Your task to perform on an android device: Add macbook pro to the cart on amazon, then select checkout. Image 0: 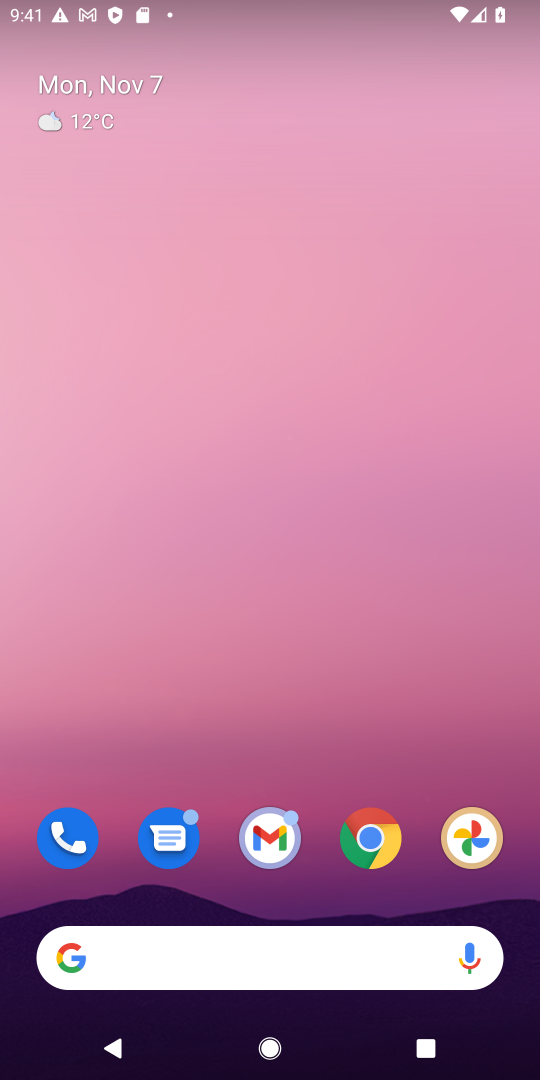
Step 0: click (372, 851)
Your task to perform on an android device: Add macbook pro to the cart on amazon, then select checkout. Image 1: 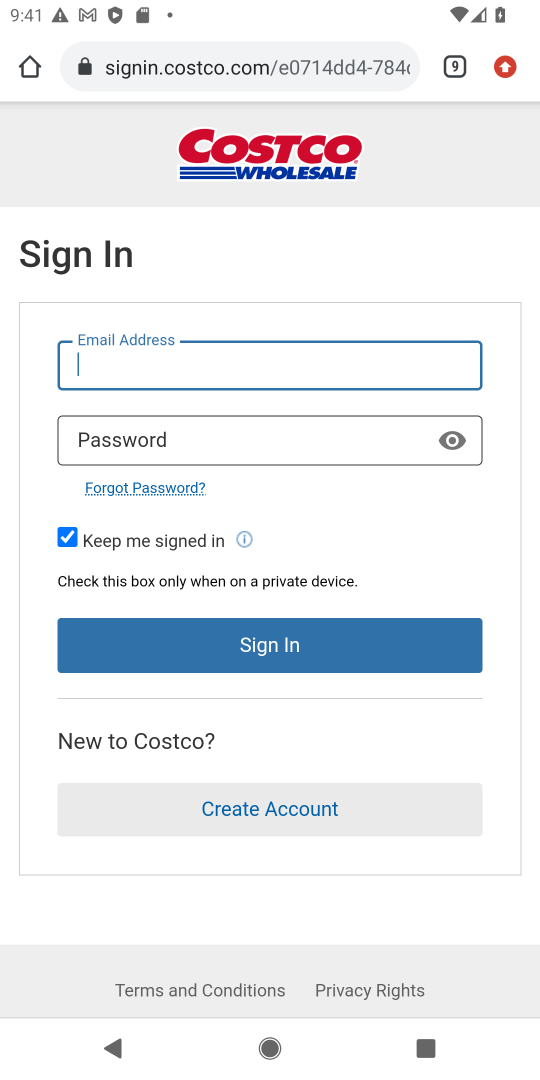
Step 1: click (450, 60)
Your task to perform on an android device: Add macbook pro to the cart on amazon, then select checkout. Image 2: 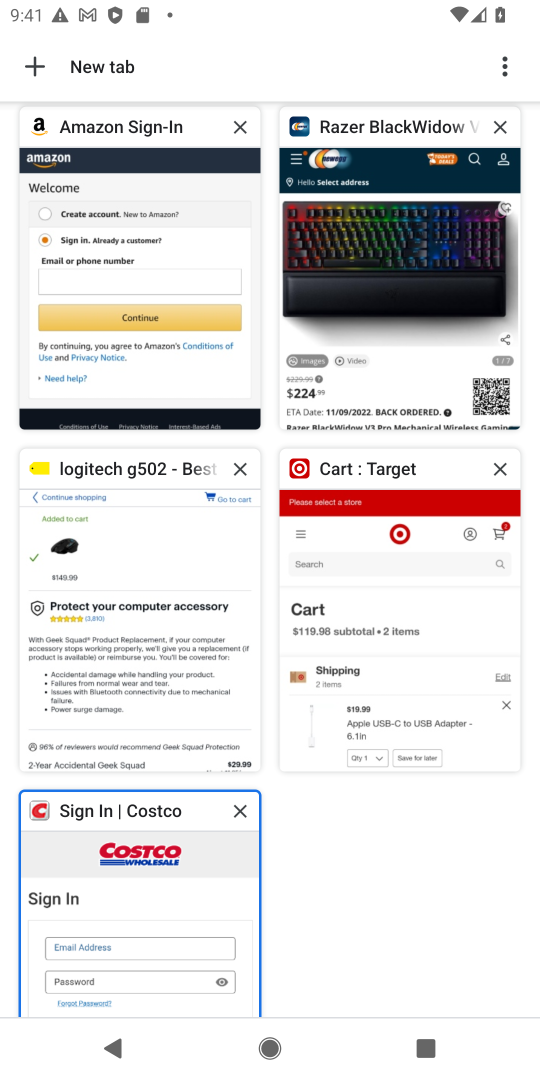
Step 2: click (117, 344)
Your task to perform on an android device: Add macbook pro to the cart on amazon, then select checkout. Image 3: 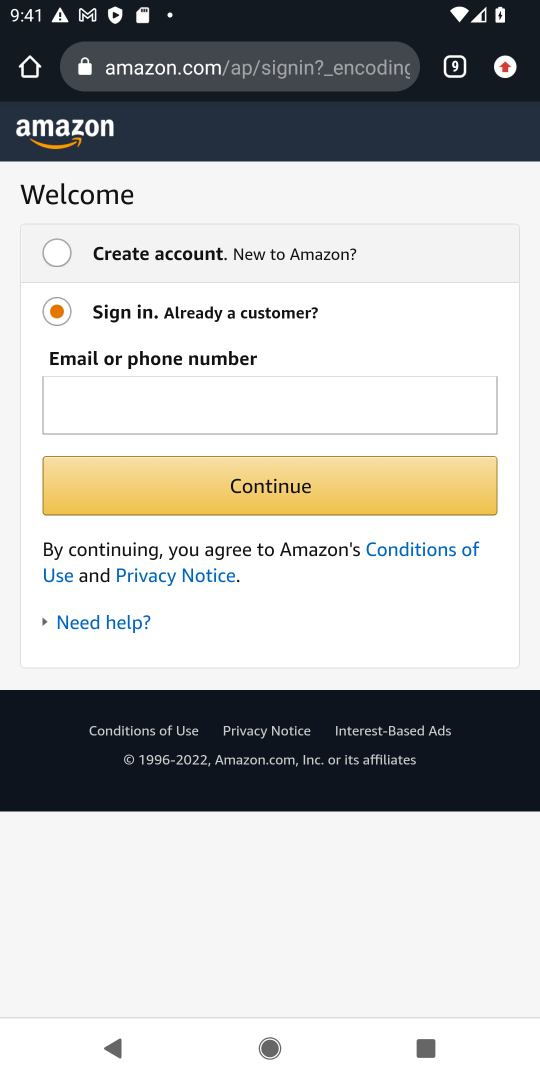
Step 3: press back button
Your task to perform on an android device: Add macbook pro to the cart on amazon, then select checkout. Image 4: 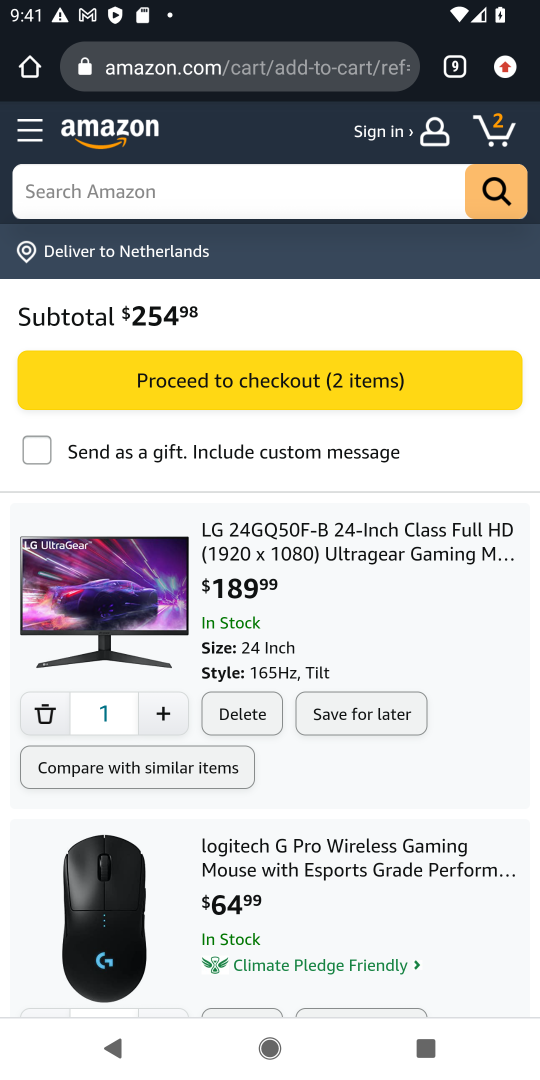
Step 4: click (296, 203)
Your task to perform on an android device: Add macbook pro to the cart on amazon, then select checkout. Image 5: 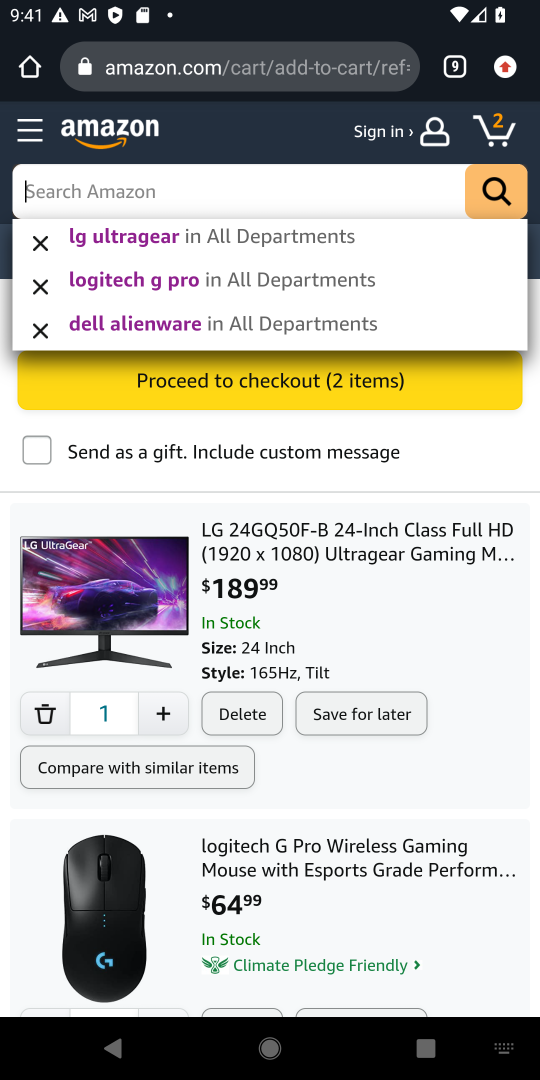
Step 5: type "macbook pro"
Your task to perform on an android device: Add macbook pro to the cart on amazon, then select checkout. Image 6: 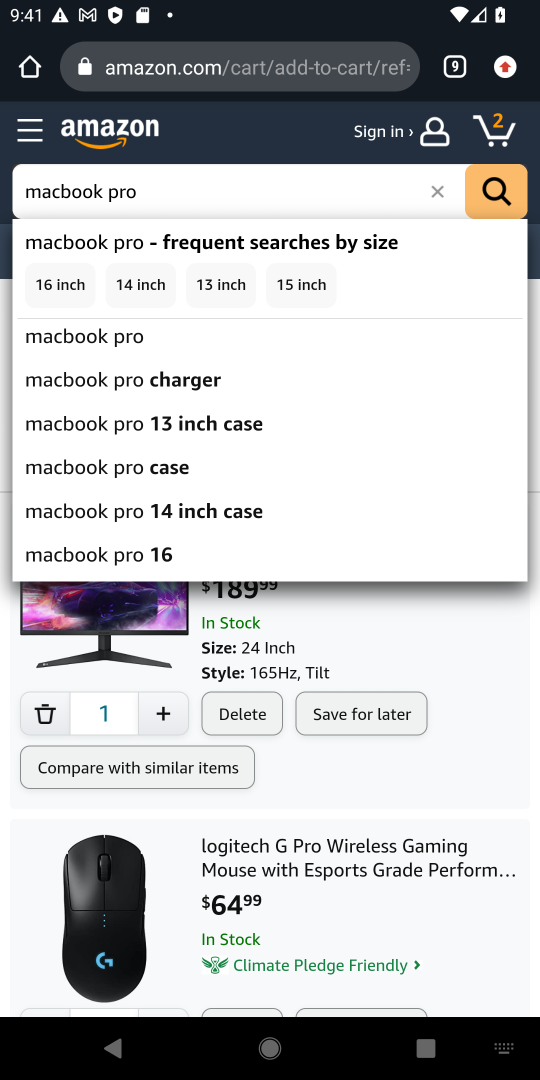
Step 6: click (103, 342)
Your task to perform on an android device: Add macbook pro to the cart on amazon, then select checkout. Image 7: 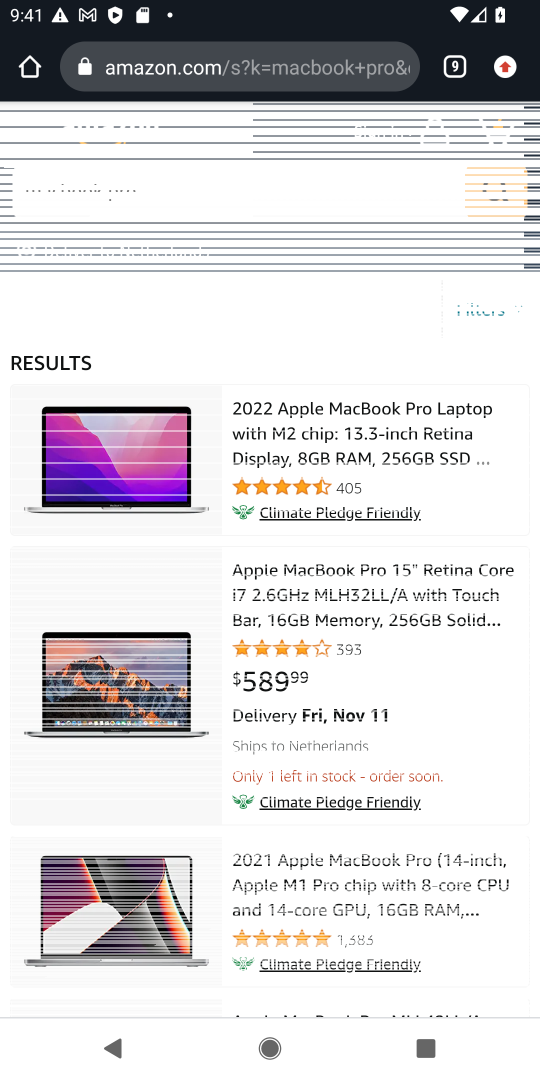
Step 7: click (307, 427)
Your task to perform on an android device: Add macbook pro to the cart on amazon, then select checkout. Image 8: 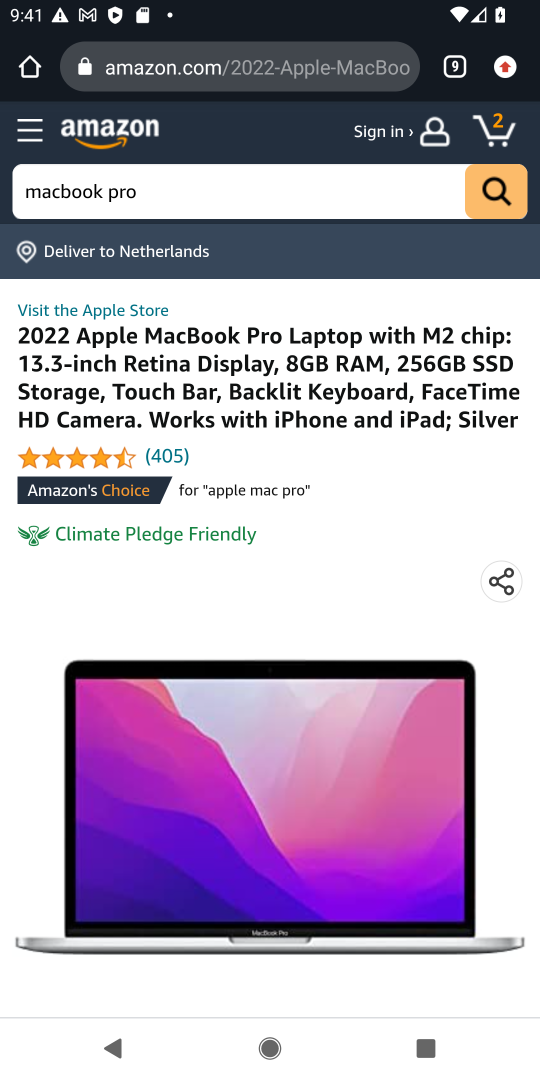
Step 8: drag from (353, 763) to (371, 220)
Your task to perform on an android device: Add macbook pro to the cart on amazon, then select checkout. Image 9: 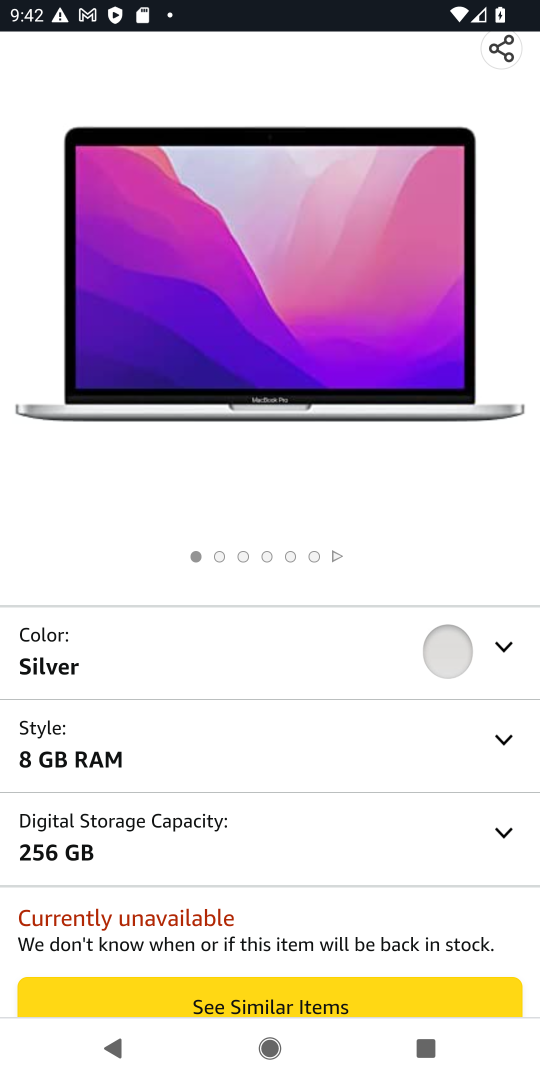
Step 9: drag from (251, 941) to (271, 442)
Your task to perform on an android device: Add macbook pro to the cart on amazon, then select checkout. Image 10: 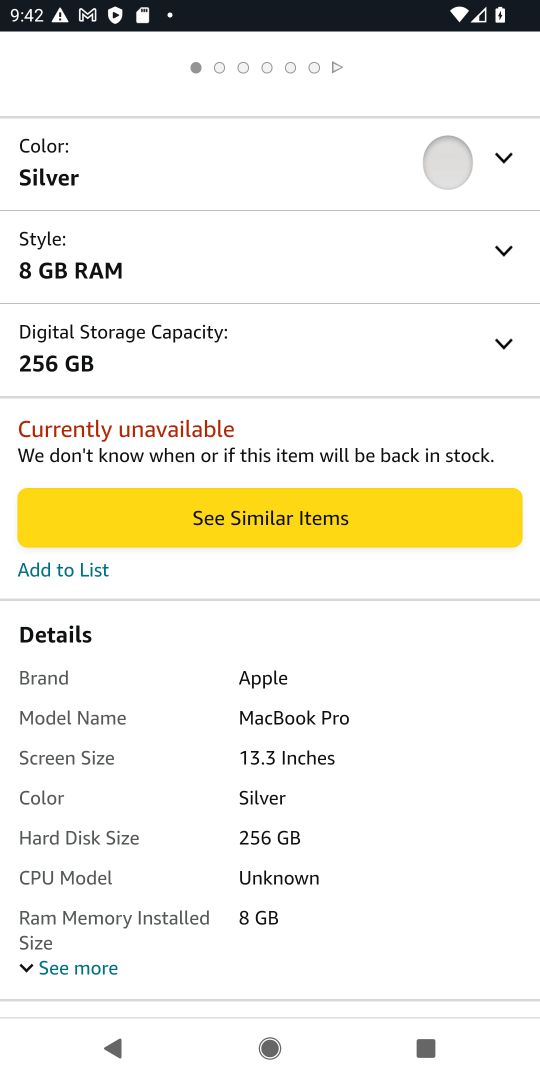
Step 10: click (286, 513)
Your task to perform on an android device: Add macbook pro to the cart on amazon, then select checkout. Image 11: 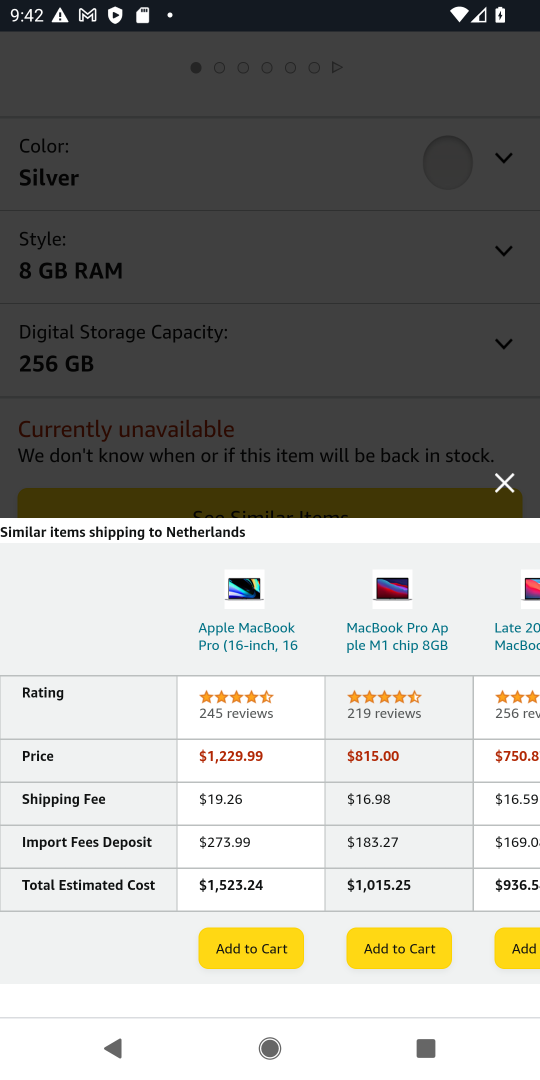
Step 11: click (263, 944)
Your task to perform on an android device: Add macbook pro to the cart on amazon, then select checkout. Image 12: 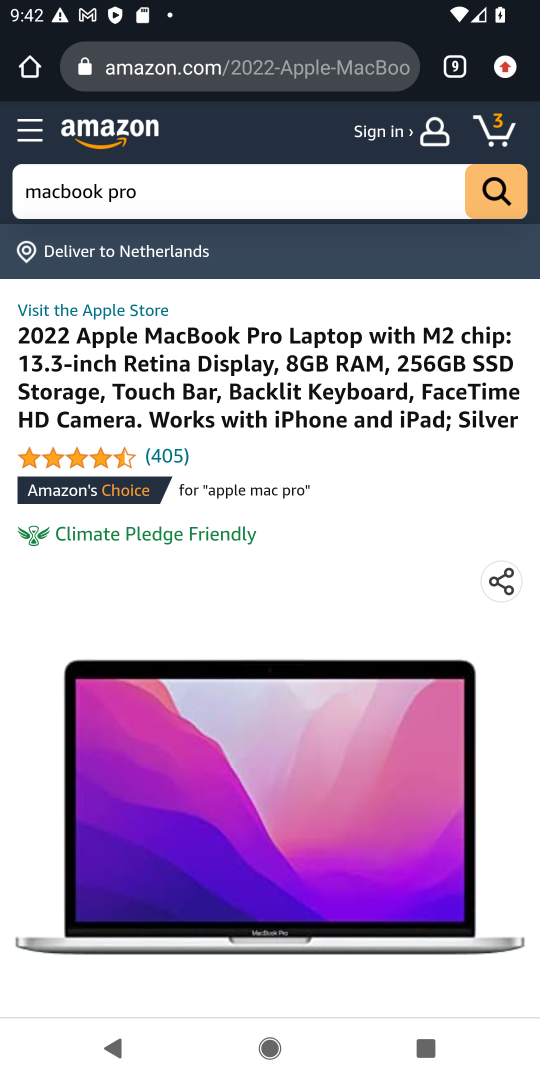
Step 12: click (495, 126)
Your task to perform on an android device: Add macbook pro to the cart on amazon, then select checkout. Image 13: 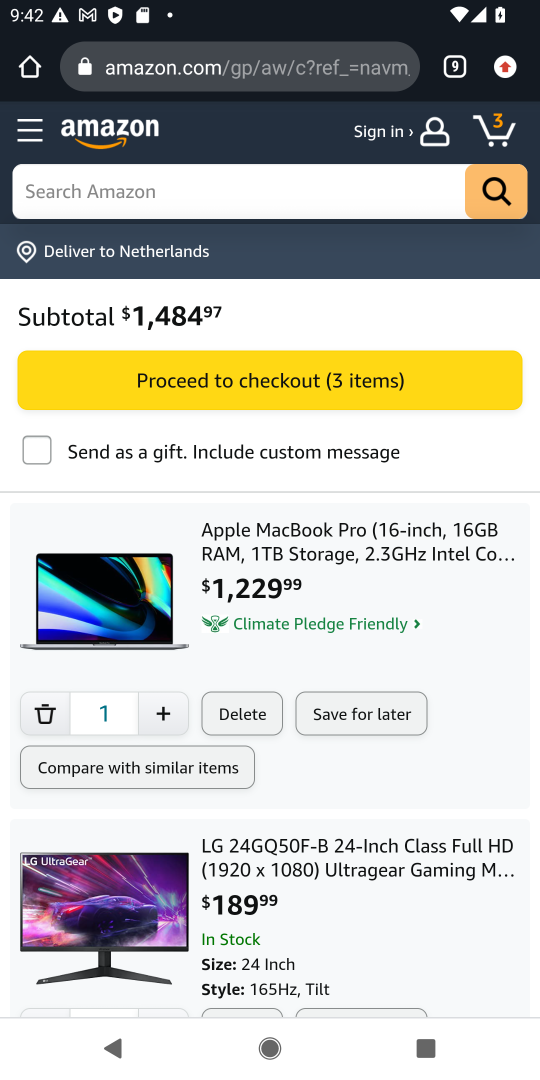
Step 13: click (185, 375)
Your task to perform on an android device: Add macbook pro to the cart on amazon, then select checkout. Image 14: 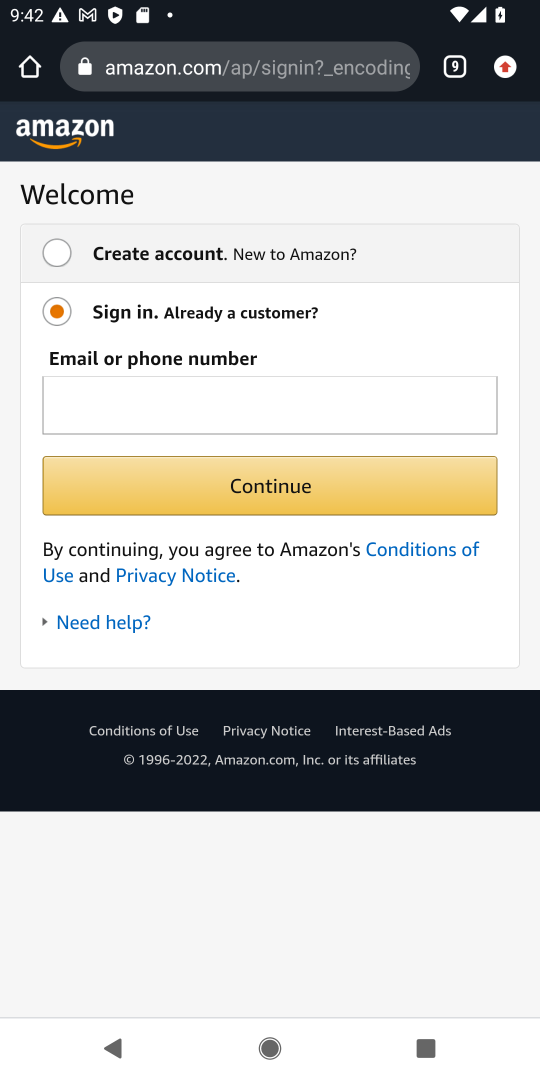
Step 14: task complete